Your task to perform on an android device: turn off location Image 0: 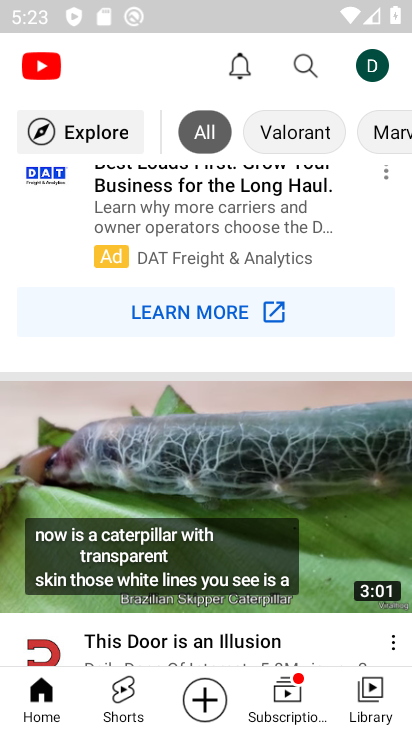
Step 0: press home button
Your task to perform on an android device: turn off location Image 1: 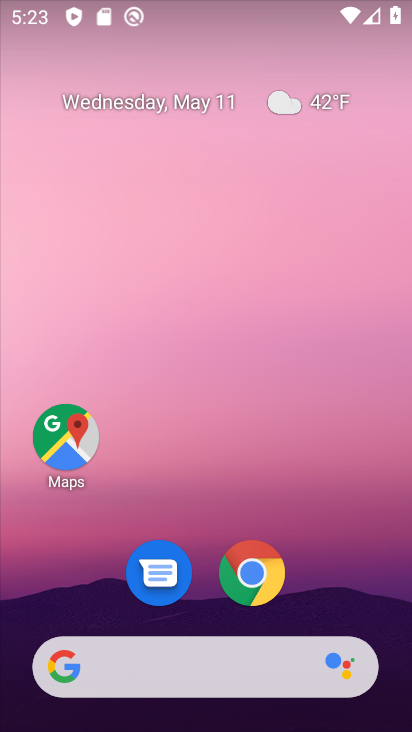
Step 1: drag from (310, 595) to (272, 187)
Your task to perform on an android device: turn off location Image 2: 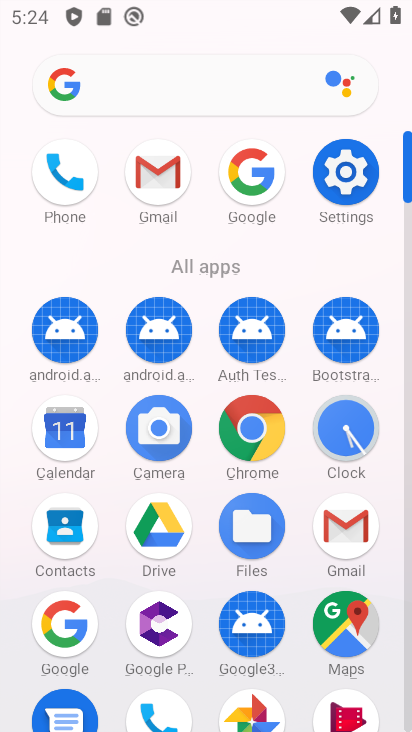
Step 2: click (339, 207)
Your task to perform on an android device: turn off location Image 3: 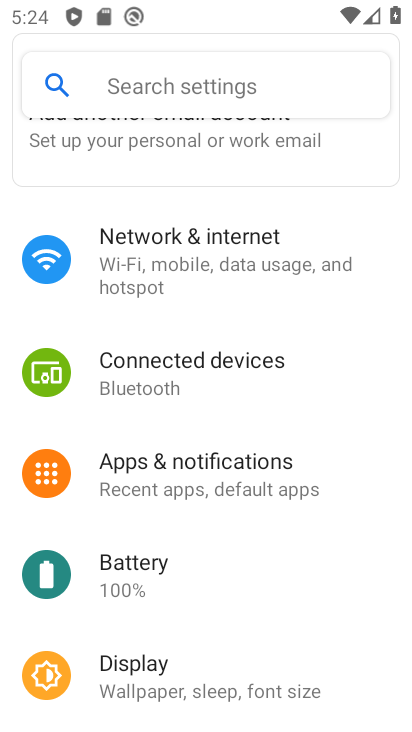
Step 3: drag from (190, 662) to (193, 283)
Your task to perform on an android device: turn off location Image 4: 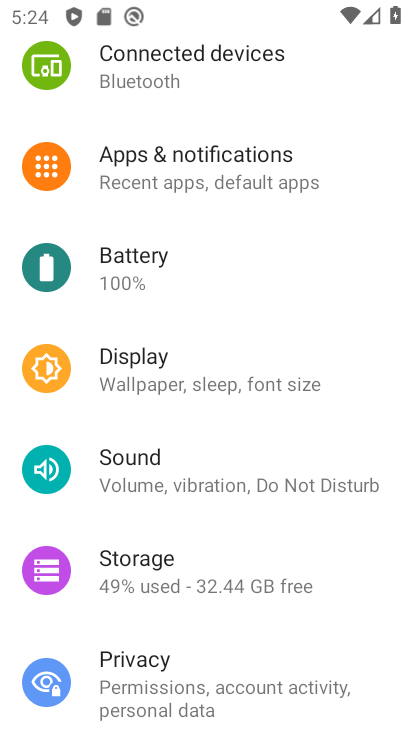
Step 4: drag from (169, 612) to (171, 375)
Your task to perform on an android device: turn off location Image 5: 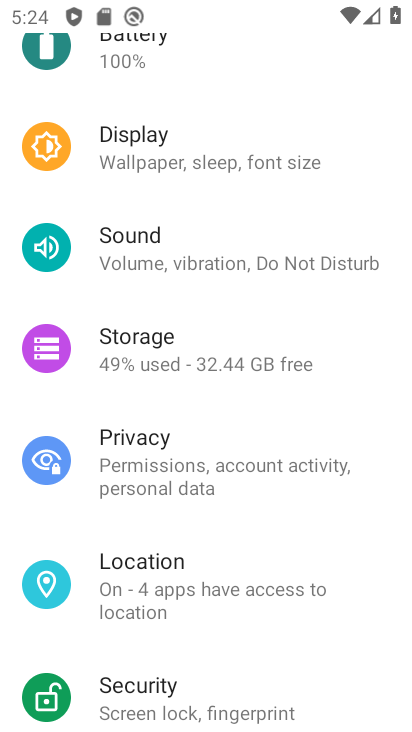
Step 5: click (158, 602)
Your task to perform on an android device: turn off location Image 6: 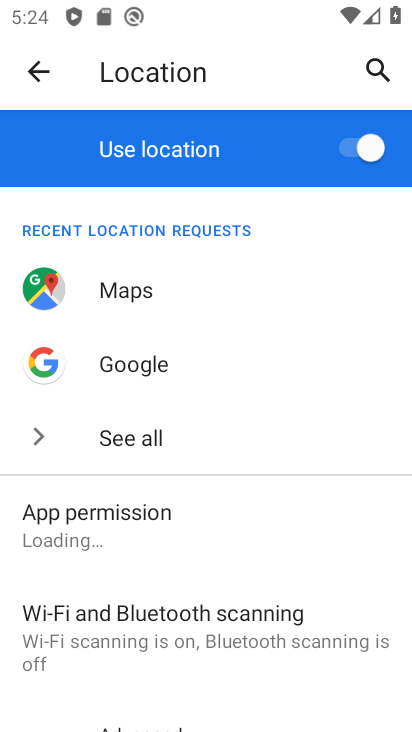
Step 6: click (349, 146)
Your task to perform on an android device: turn off location Image 7: 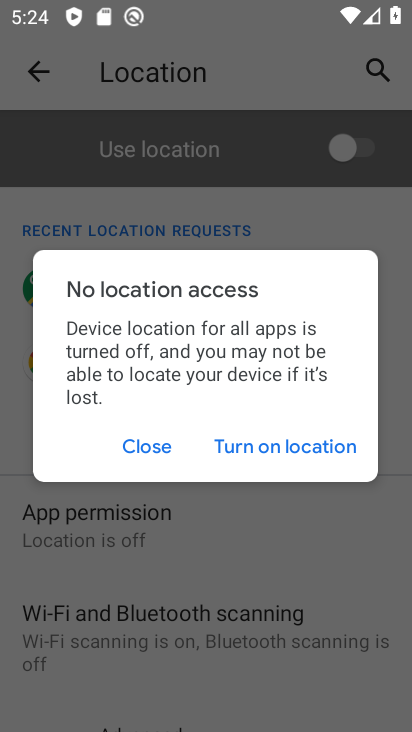
Step 7: task complete